Your task to perform on an android device: Turn off the flashlight Image 0: 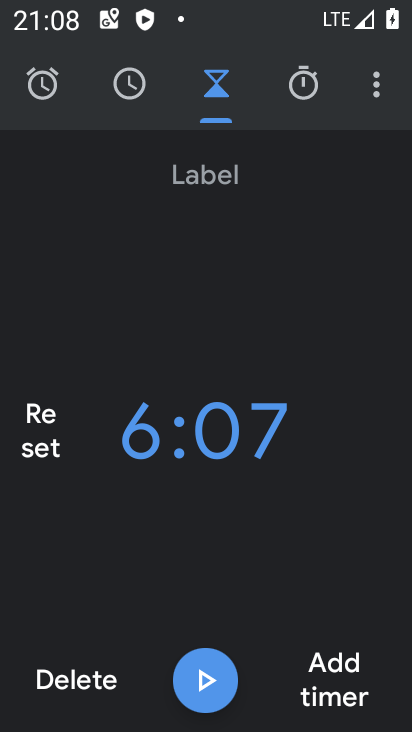
Step 0: press home button
Your task to perform on an android device: Turn off the flashlight Image 1: 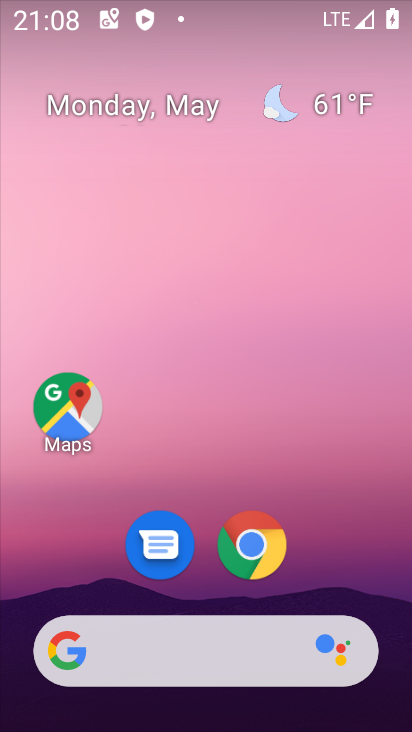
Step 1: task complete